Your task to perform on an android device: allow notifications from all sites in the chrome app Image 0: 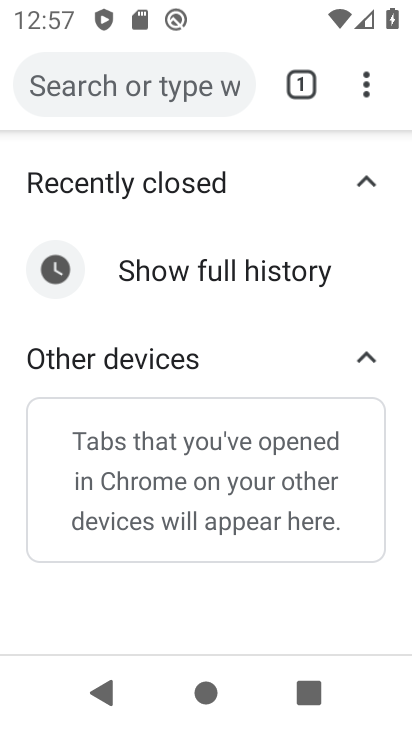
Step 0: task complete